Your task to perform on an android device: change the clock display to show seconds Image 0: 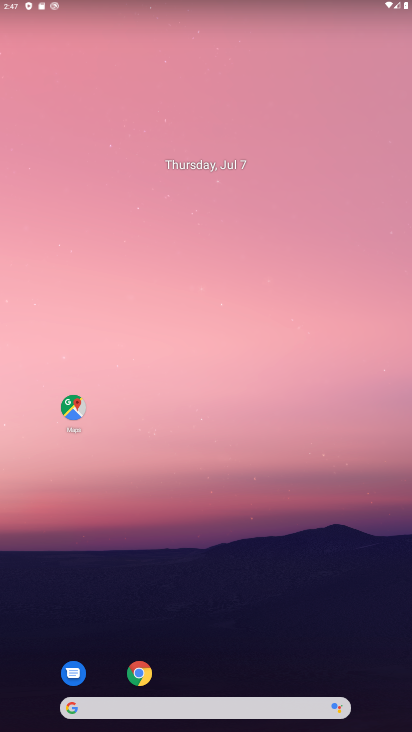
Step 0: drag from (238, 683) to (255, 243)
Your task to perform on an android device: change the clock display to show seconds Image 1: 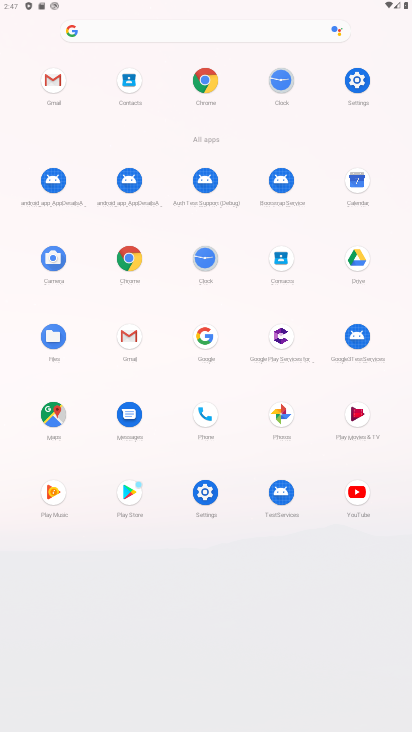
Step 1: click (199, 262)
Your task to perform on an android device: change the clock display to show seconds Image 2: 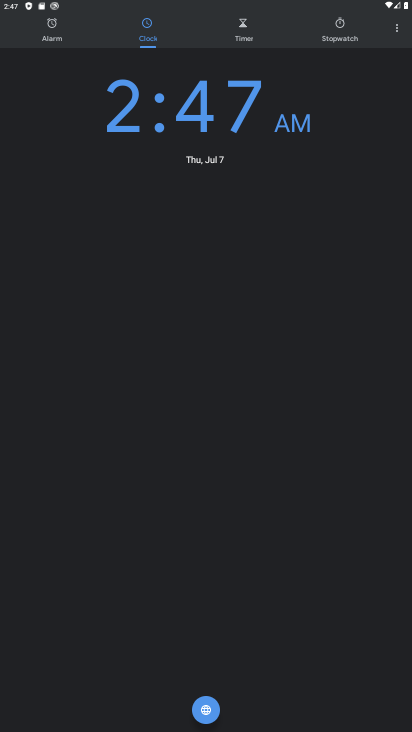
Step 2: click (395, 35)
Your task to perform on an android device: change the clock display to show seconds Image 3: 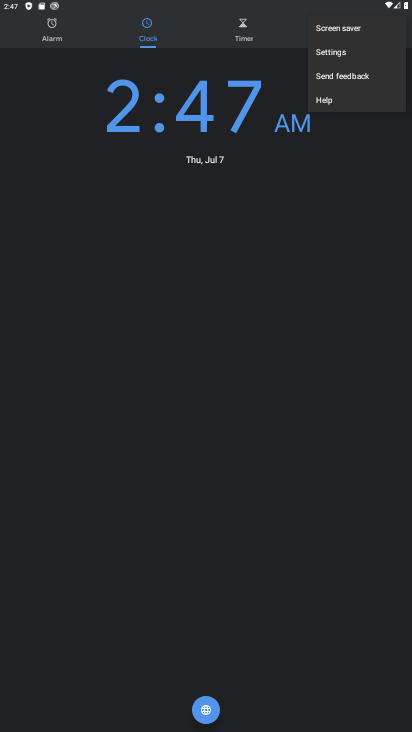
Step 3: click (319, 54)
Your task to perform on an android device: change the clock display to show seconds Image 4: 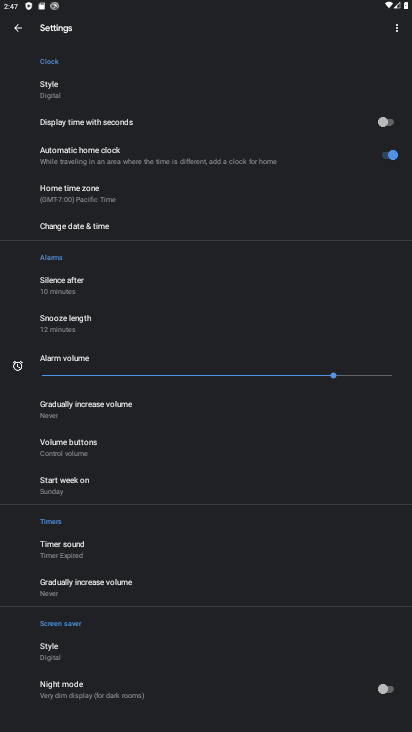
Step 4: click (396, 119)
Your task to perform on an android device: change the clock display to show seconds Image 5: 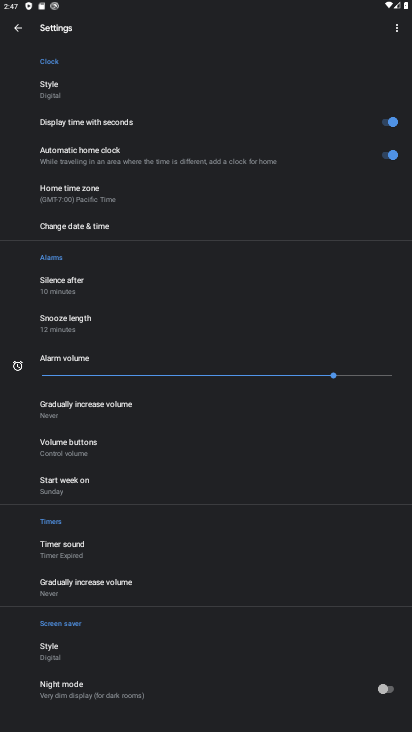
Step 5: task complete